Your task to perform on an android device: Search for Italian restaurants on Maps Image 0: 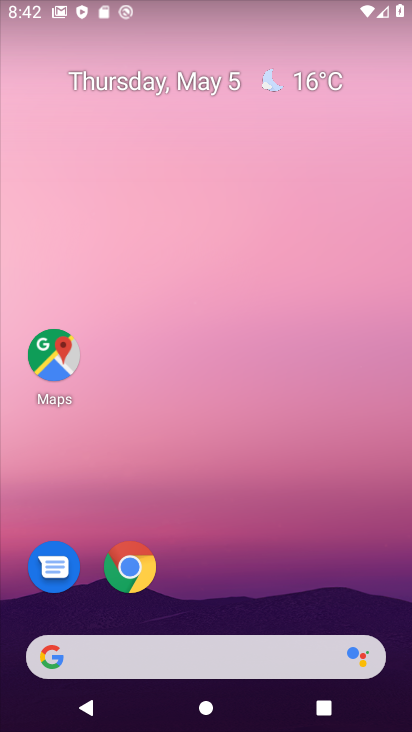
Step 0: click (58, 348)
Your task to perform on an android device: Search for Italian restaurants on Maps Image 1: 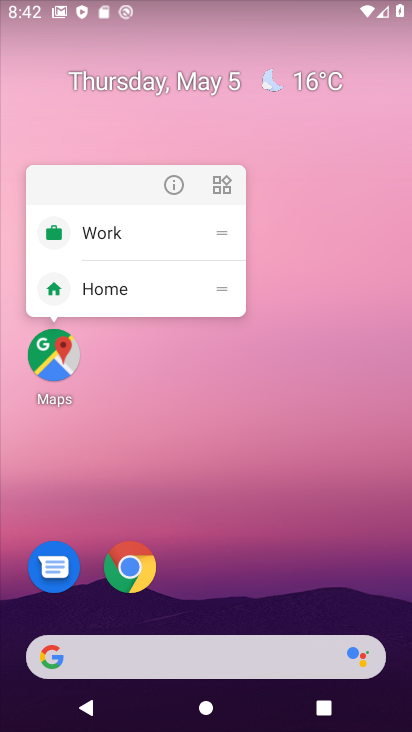
Step 1: click (53, 349)
Your task to perform on an android device: Search for Italian restaurants on Maps Image 2: 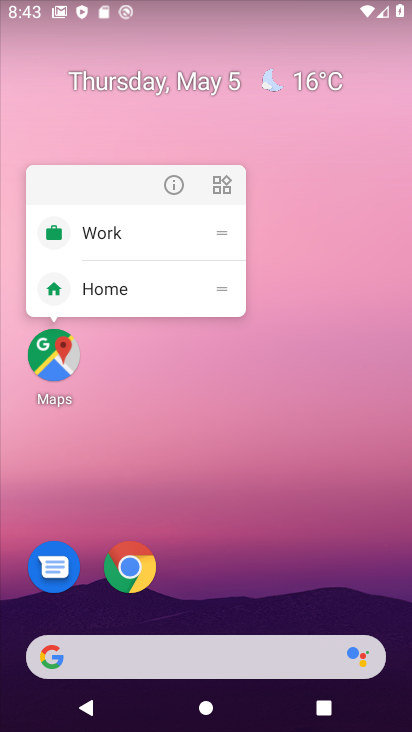
Step 2: click (55, 353)
Your task to perform on an android device: Search for Italian restaurants on Maps Image 3: 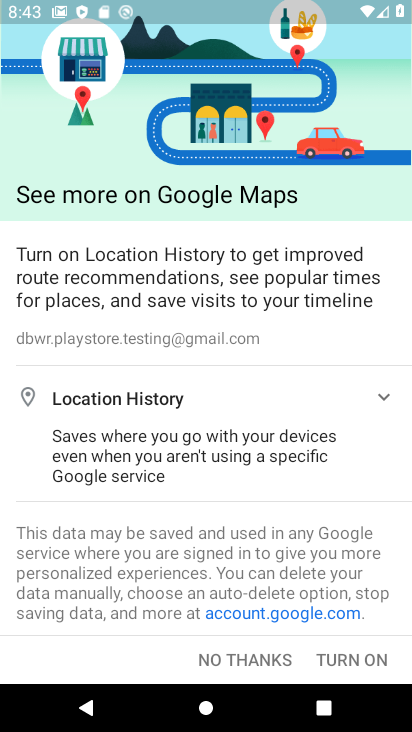
Step 3: click (363, 661)
Your task to perform on an android device: Search for Italian restaurants on Maps Image 4: 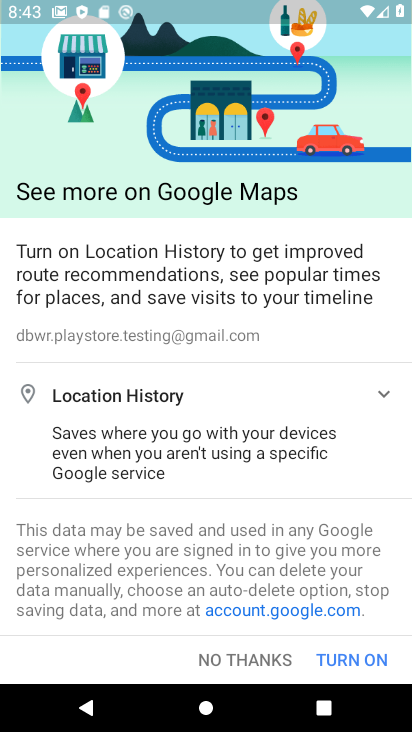
Step 4: click (355, 661)
Your task to perform on an android device: Search for Italian restaurants on Maps Image 5: 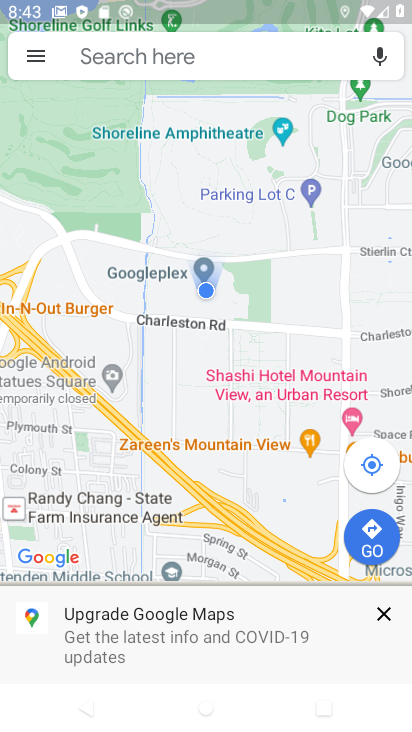
Step 5: click (258, 51)
Your task to perform on an android device: Search for Italian restaurants on Maps Image 6: 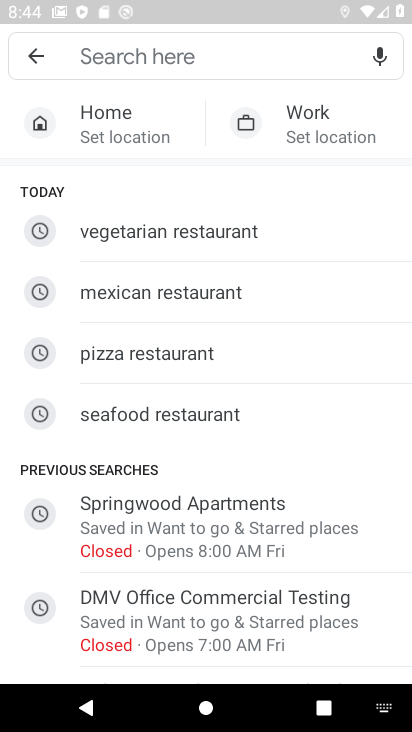
Step 6: type "italian restaurants"
Your task to perform on an android device: Search for Italian restaurants on Maps Image 7: 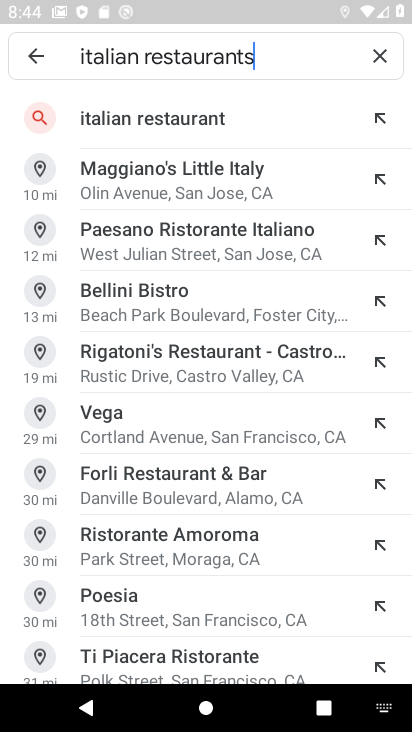
Step 7: click (190, 119)
Your task to perform on an android device: Search for Italian restaurants on Maps Image 8: 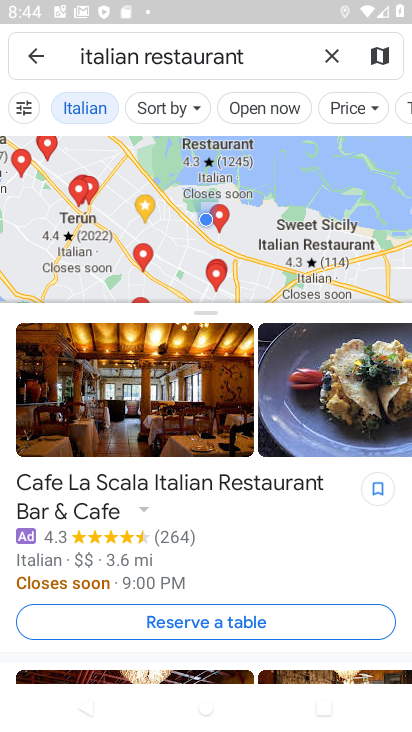
Step 8: task complete